Your task to perform on an android device: Open CNN.com Image 0: 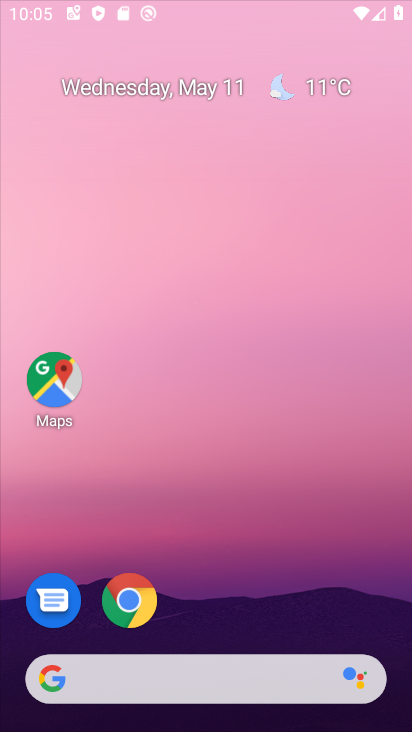
Step 0: drag from (278, 533) to (246, 220)
Your task to perform on an android device: Open CNN.com Image 1: 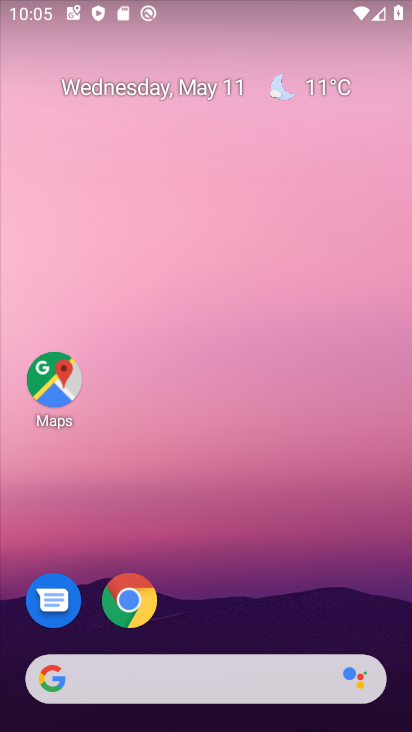
Step 1: drag from (229, 617) to (283, 221)
Your task to perform on an android device: Open CNN.com Image 2: 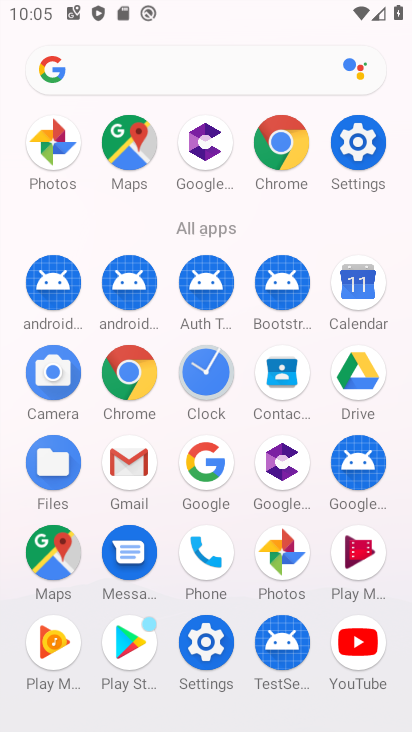
Step 2: click (362, 151)
Your task to perform on an android device: Open CNN.com Image 3: 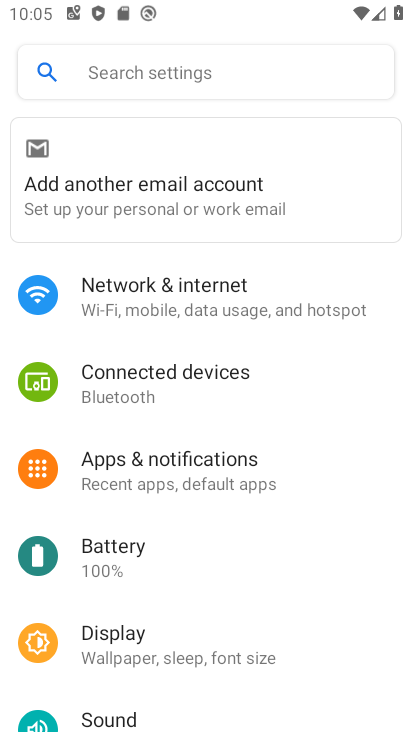
Step 3: click (128, 263)
Your task to perform on an android device: Open CNN.com Image 4: 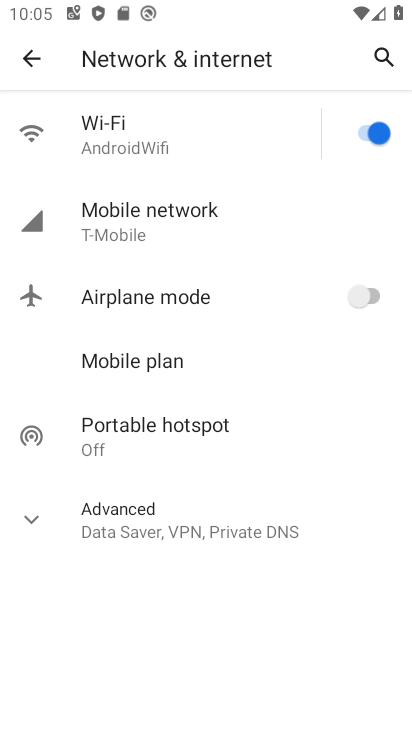
Step 4: task complete